Your task to perform on an android device: Go to notification settings Image 0: 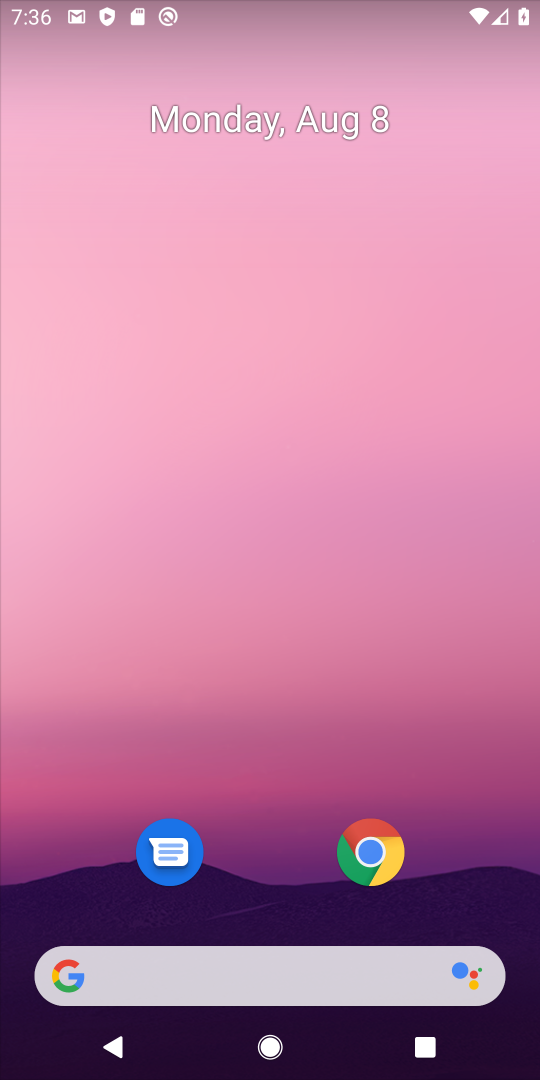
Step 0: drag from (273, 830) to (273, 305)
Your task to perform on an android device: Go to notification settings Image 1: 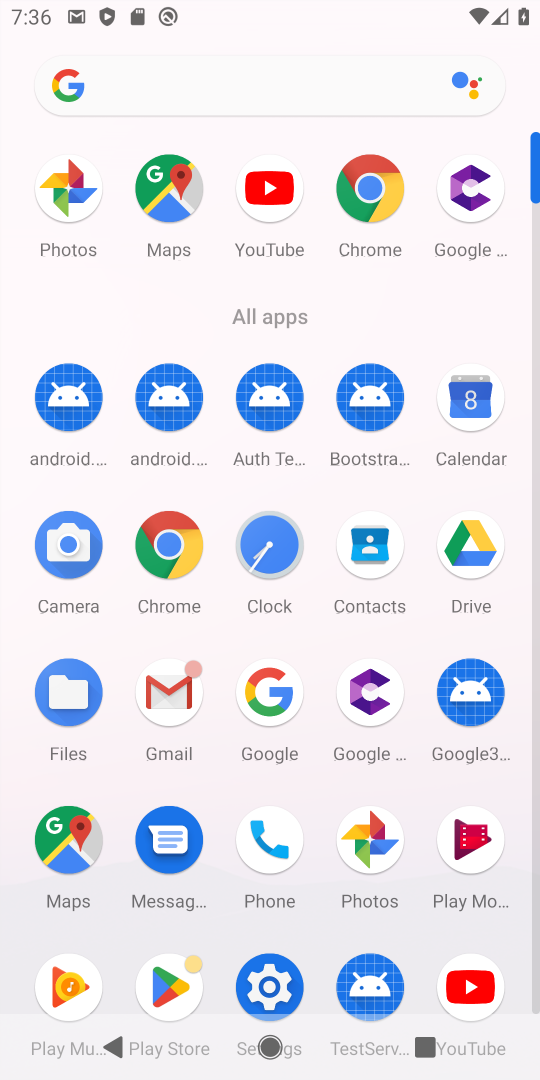
Step 1: click (268, 989)
Your task to perform on an android device: Go to notification settings Image 2: 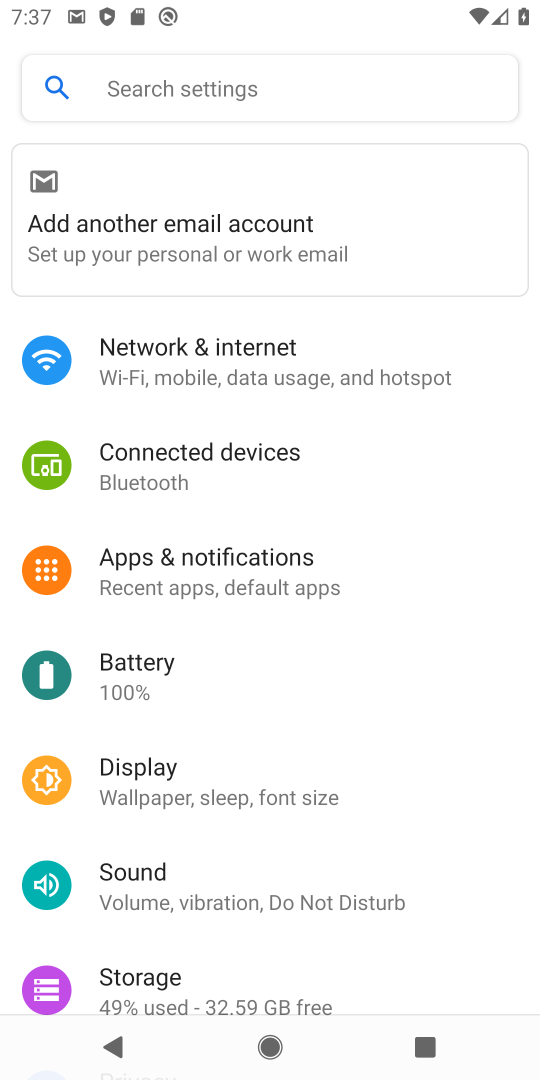
Step 2: click (211, 565)
Your task to perform on an android device: Go to notification settings Image 3: 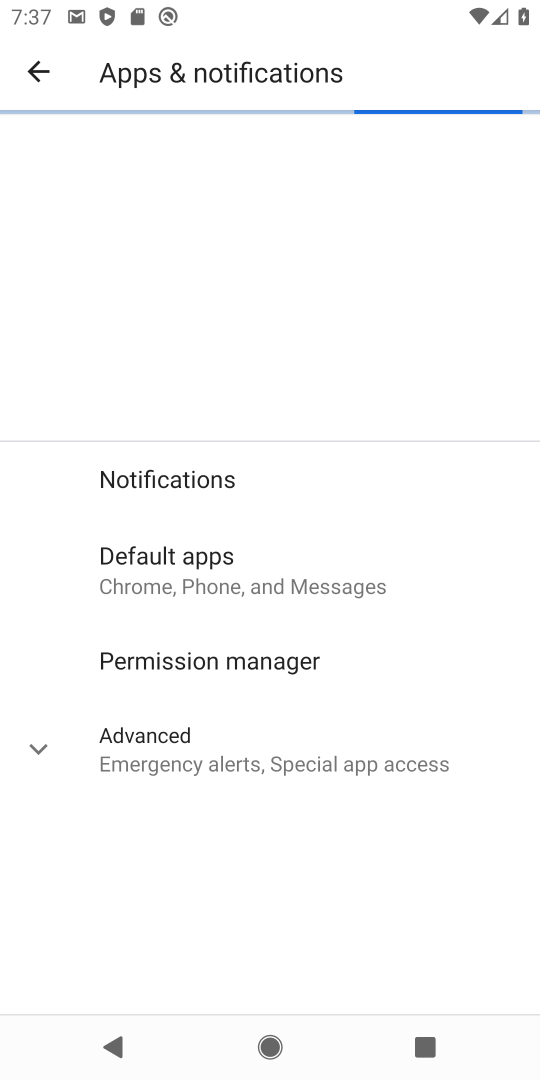
Step 3: click (135, 744)
Your task to perform on an android device: Go to notification settings Image 4: 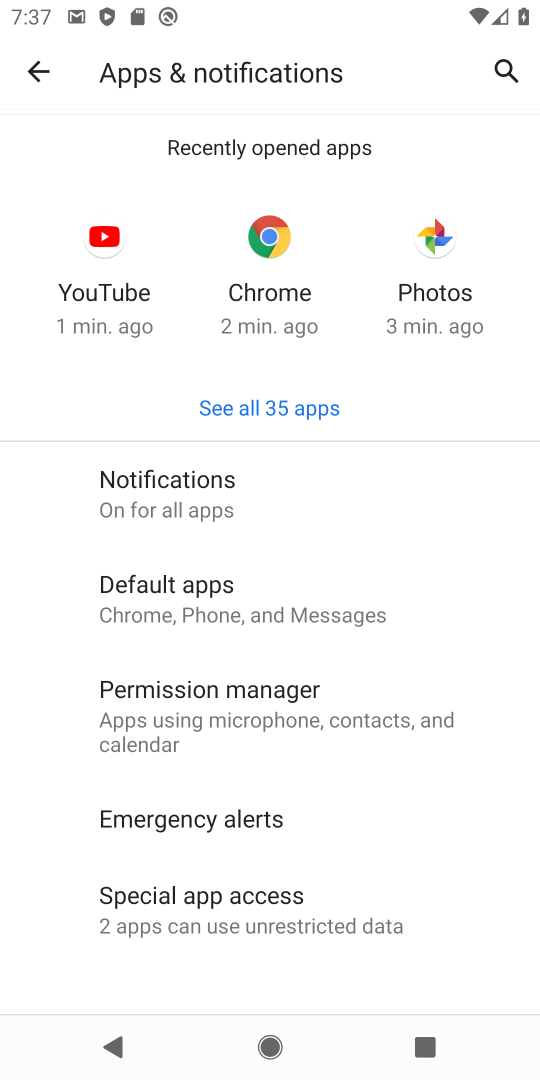
Step 4: task complete